Your task to perform on an android device: Add macbook pro 15 inch to the cart on newegg Image 0: 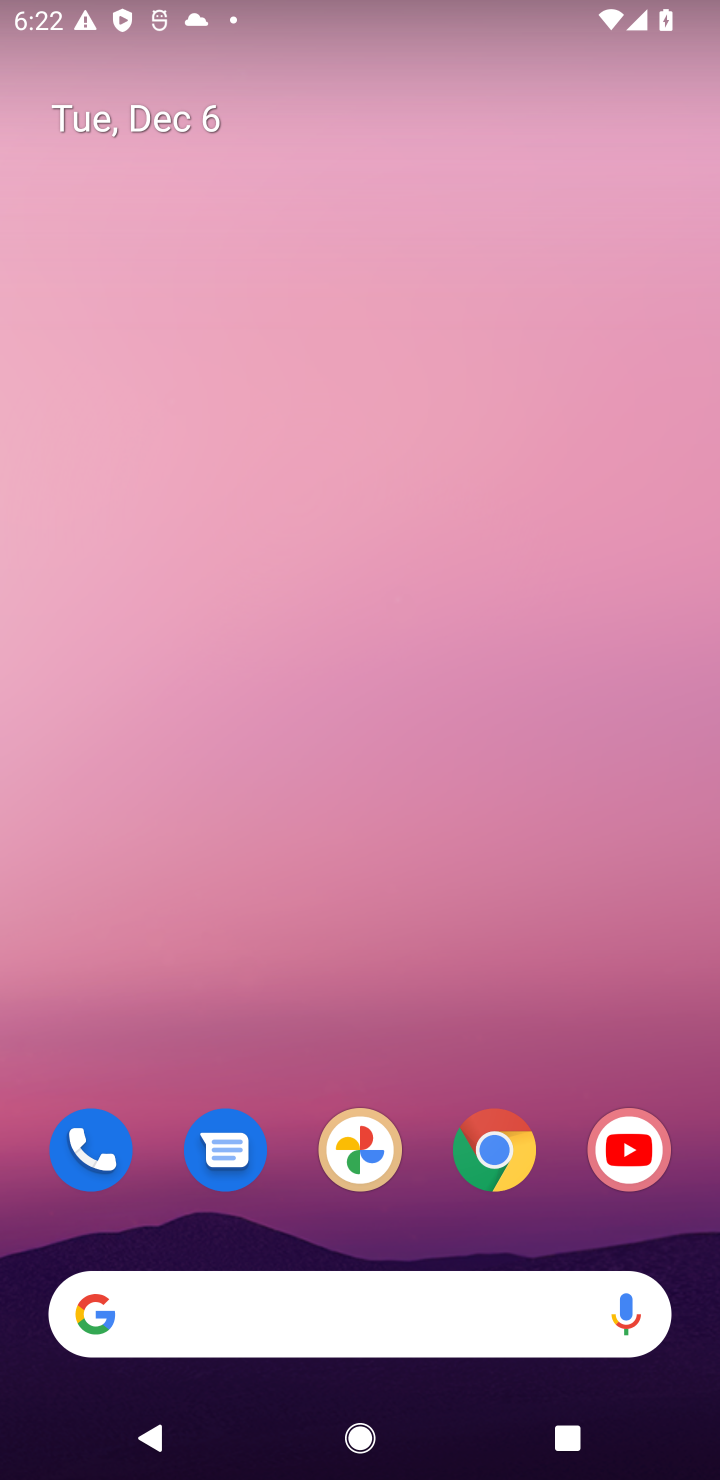
Step 0: click (490, 1160)
Your task to perform on an android device: Add macbook pro 15 inch to the cart on newegg Image 1: 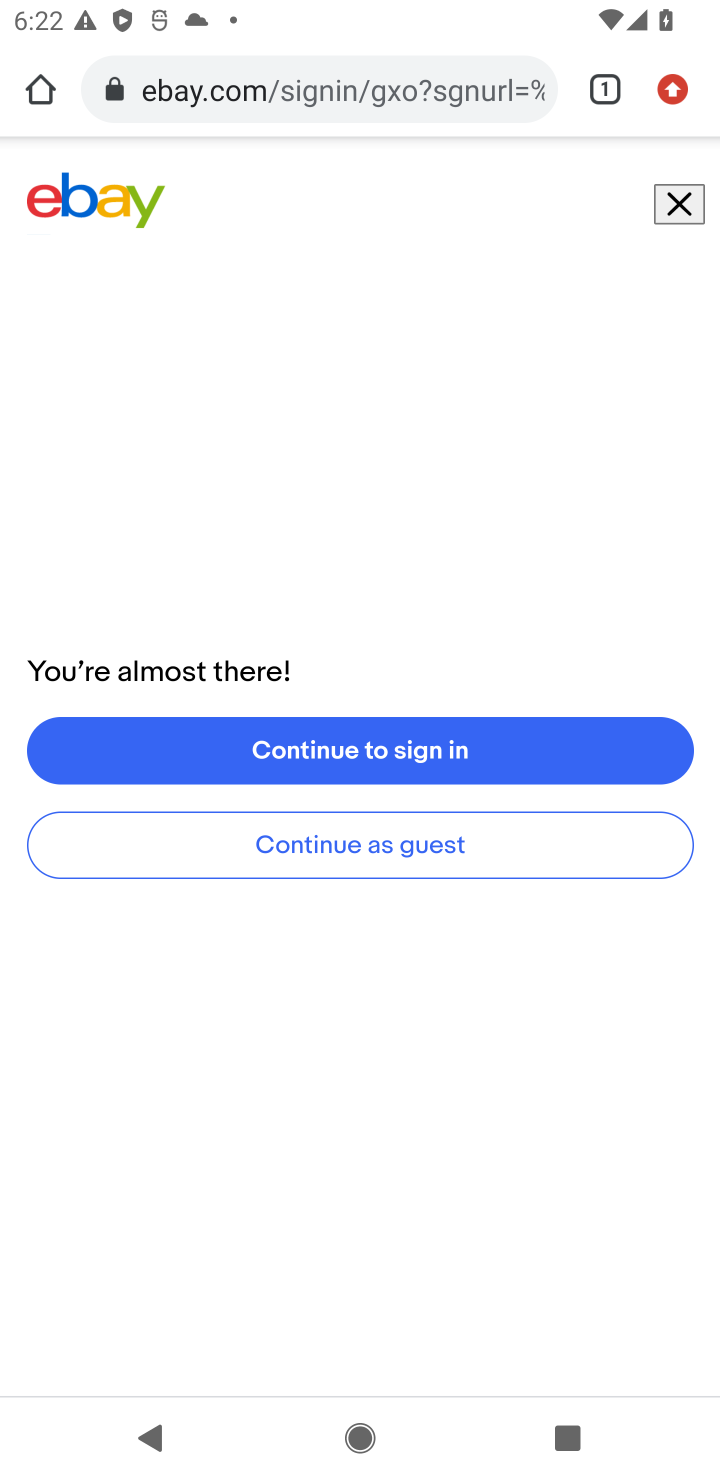
Step 1: click (277, 78)
Your task to perform on an android device: Add macbook pro 15 inch to the cart on newegg Image 2: 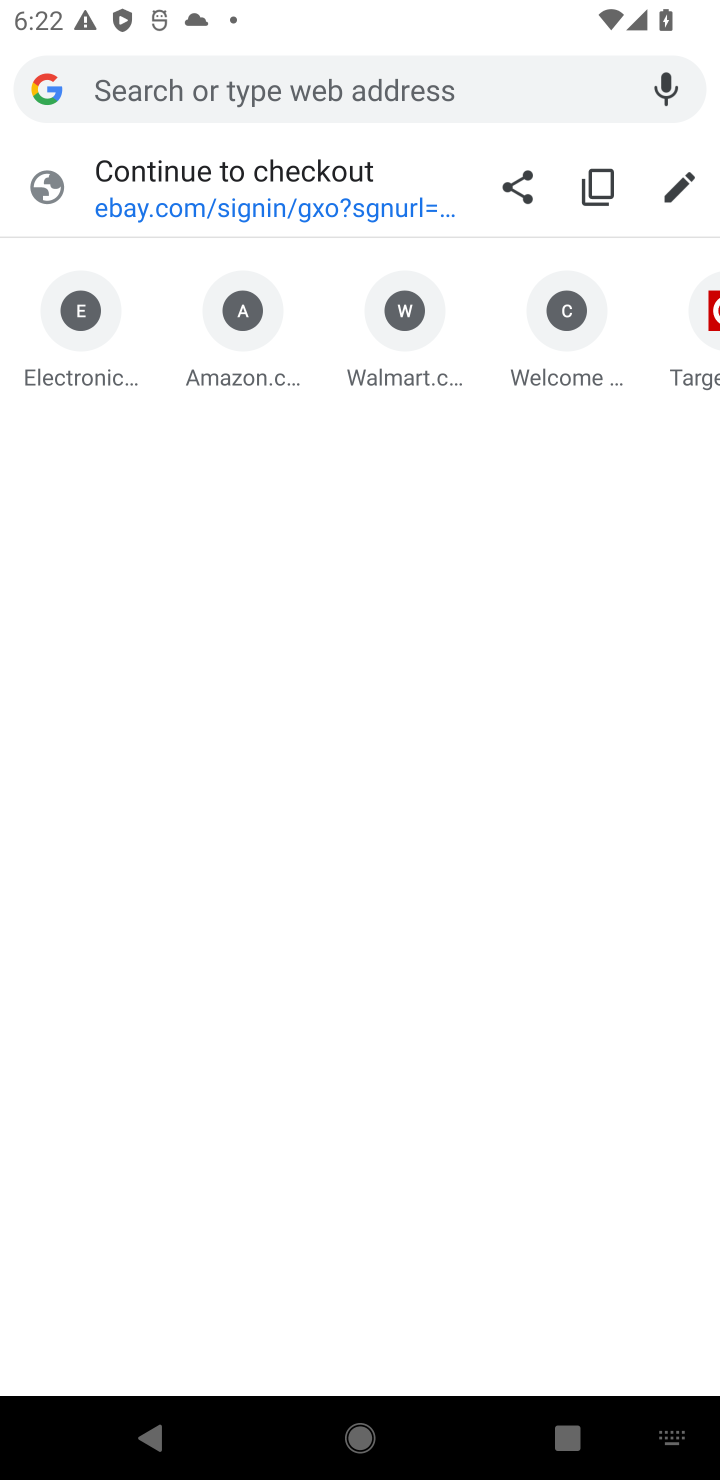
Step 2: type "newegg.com"
Your task to perform on an android device: Add macbook pro 15 inch to the cart on newegg Image 3: 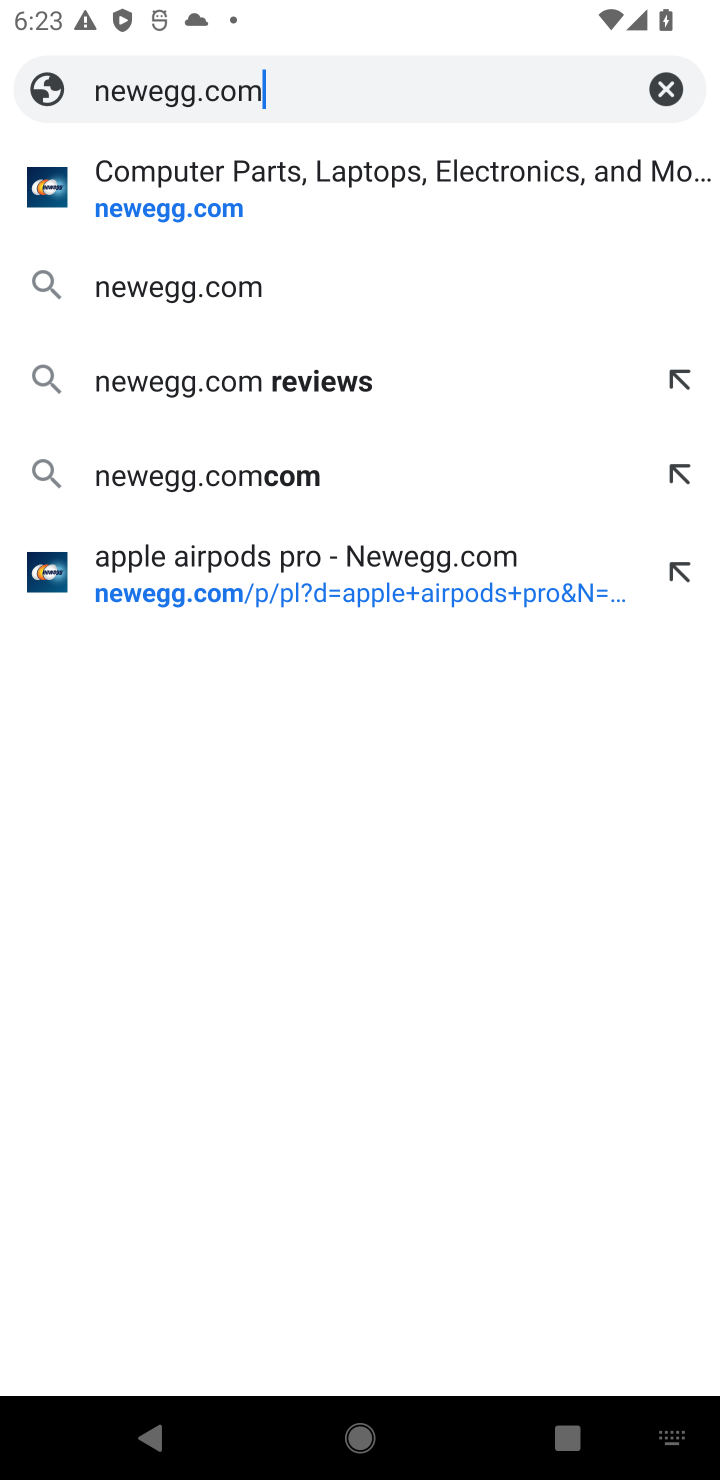
Step 3: click (169, 204)
Your task to perform on an android device: Add macbook pro 15 inch to the cart on newegg Image 4: 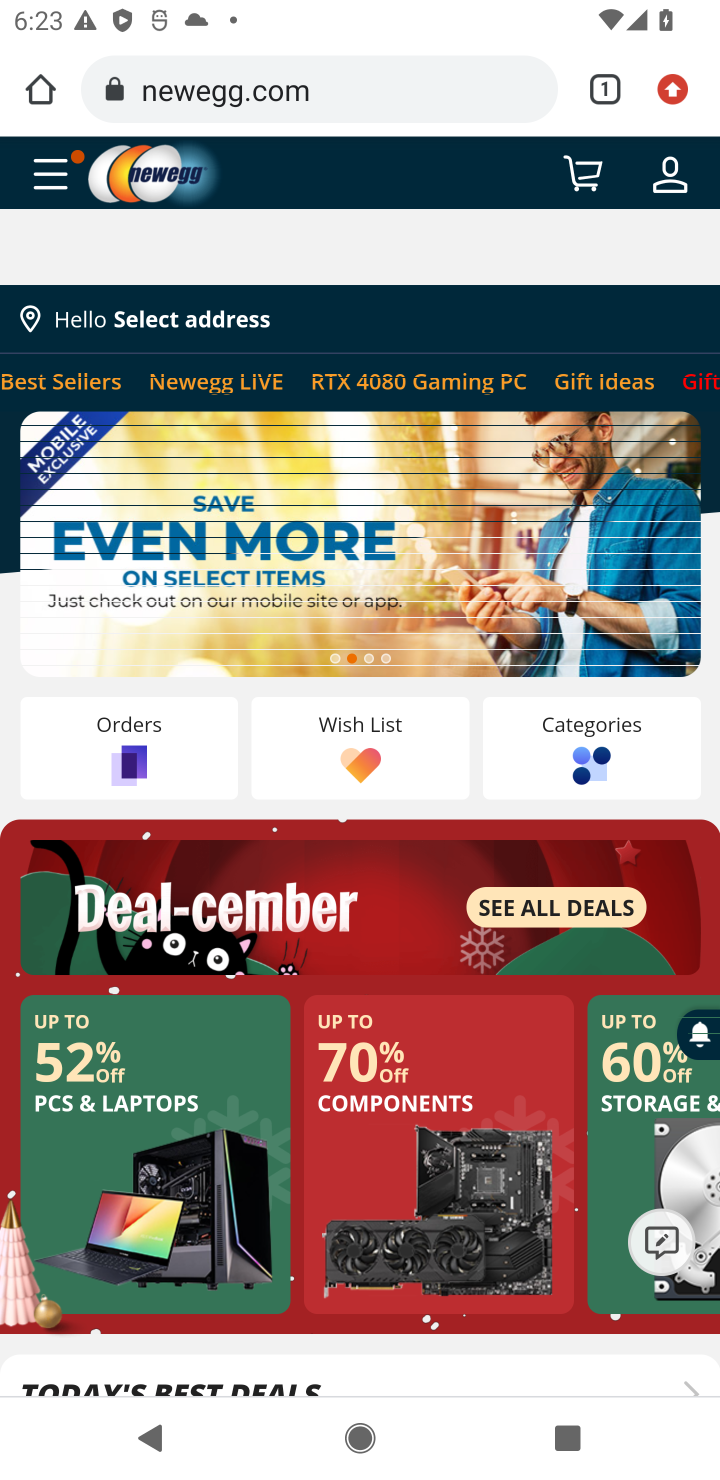
Step 4: click (136, 259)
Your task to perform on an android device: Add macbook pro 15 inch to the cart on newegg Image 5: 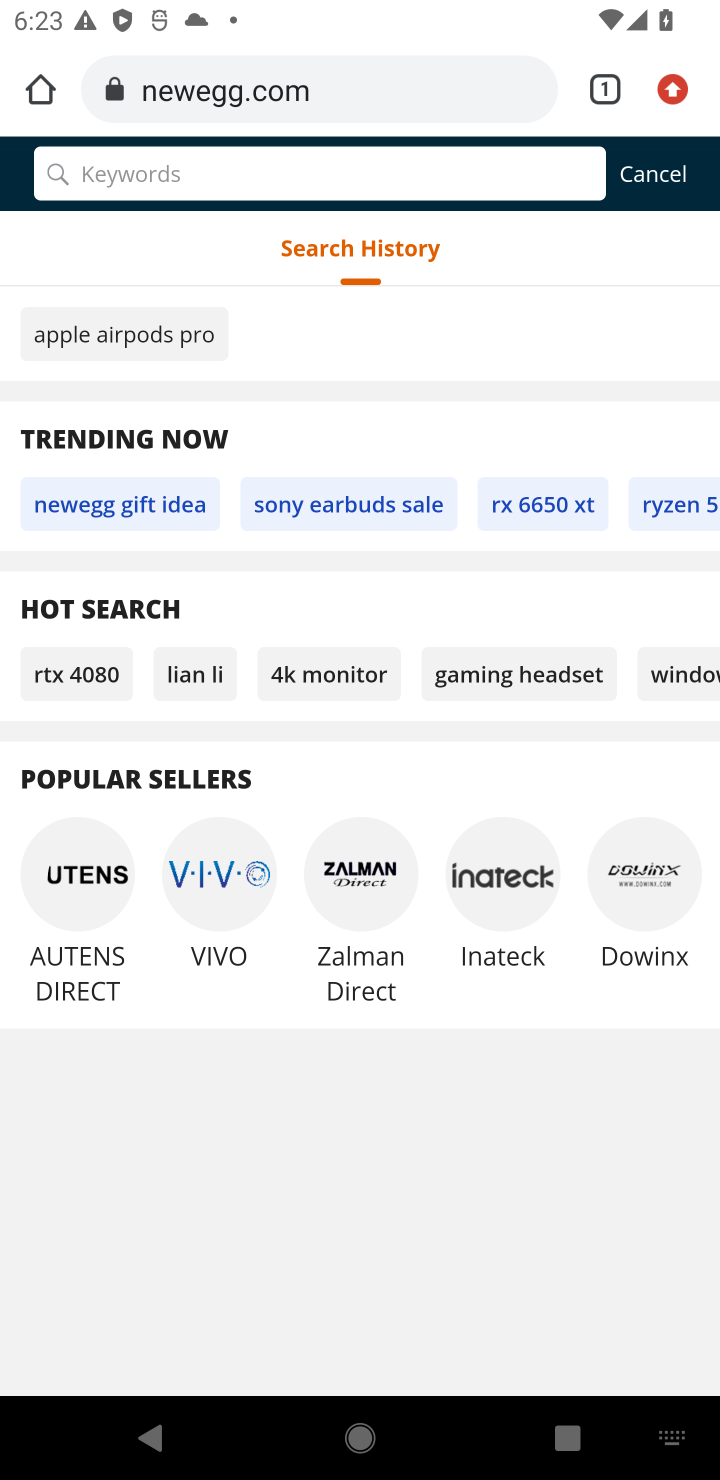
Step 5: type "macbook pro 15 inch"
Your task to perform on an android device: Add macbook pro 15 inch to the cart on newegg Image 6: 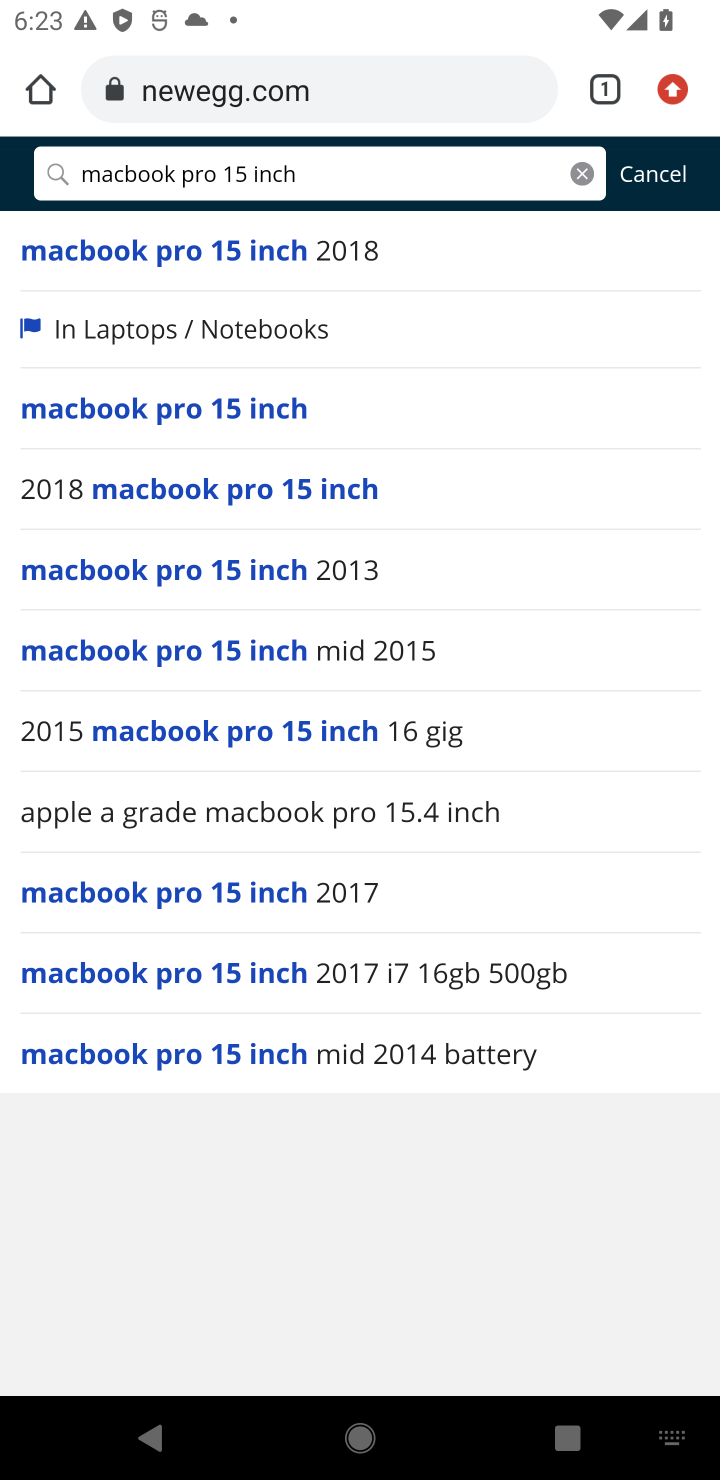
Step 6: click (204, 408)
Your task to perform on an android device: Add macbook pro 15 inch to the cart on newegg Image 7: 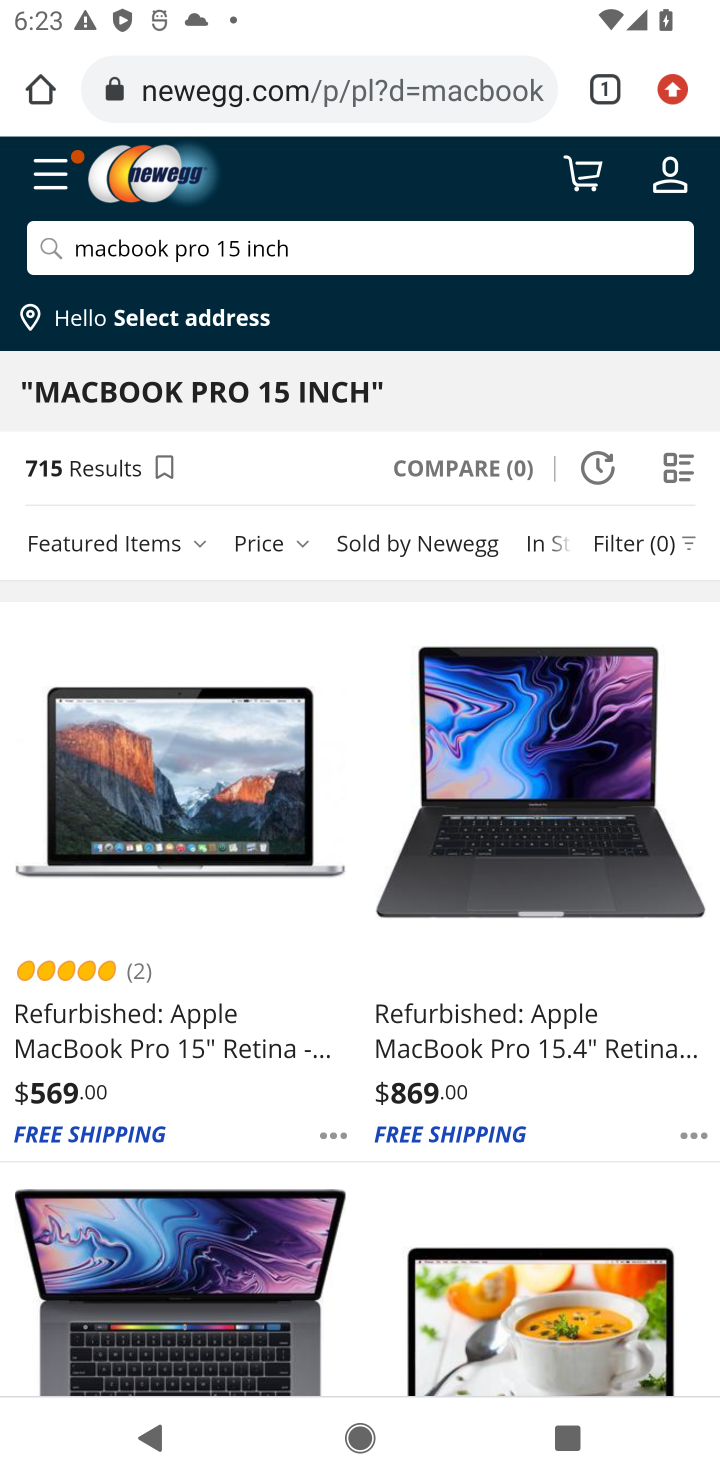
Step 7: click (162, 1029)
Your task to perform on an android device: Add macbook pro 15 inch to the cart on newegg Image 8: 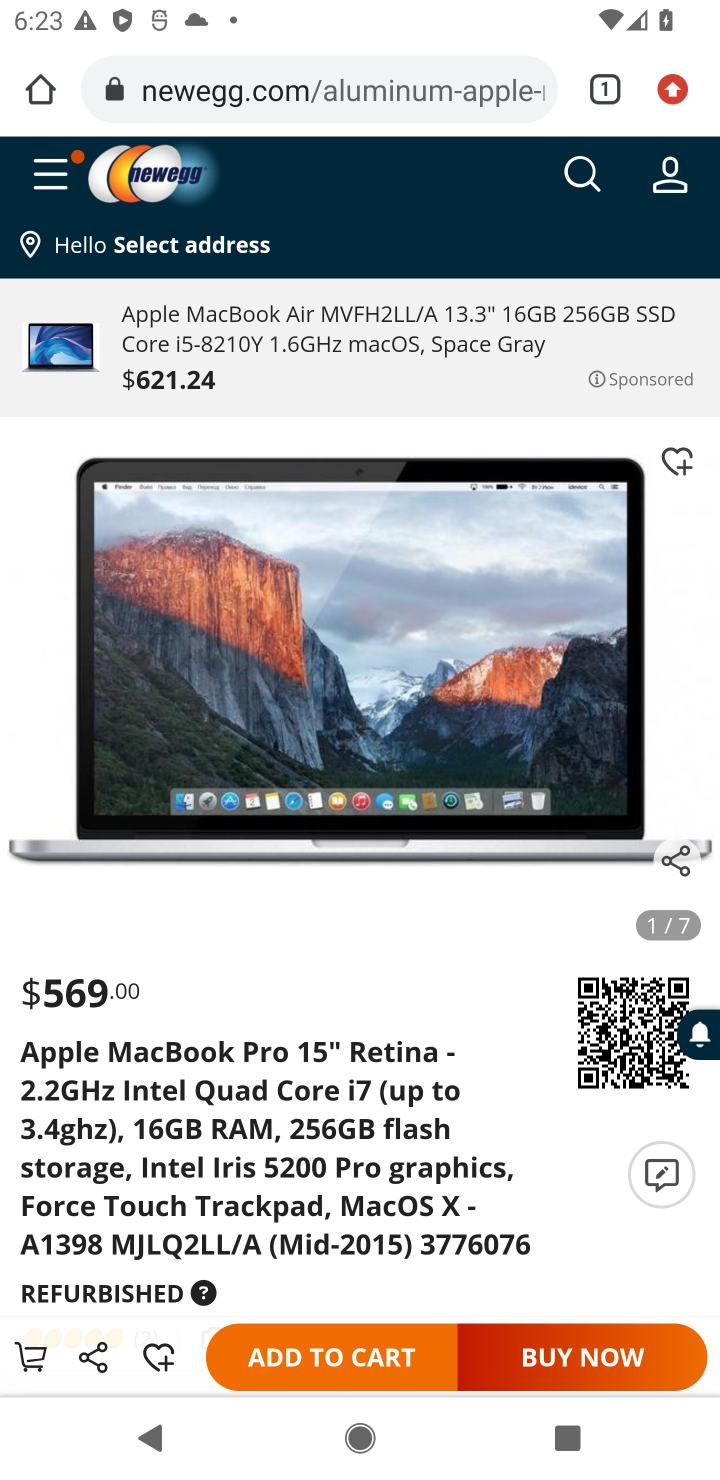
Step 8: click (299, 1350)
Your task to perform on an android device: Add macbook pro 15 inch to the cart on newegg Image 9: 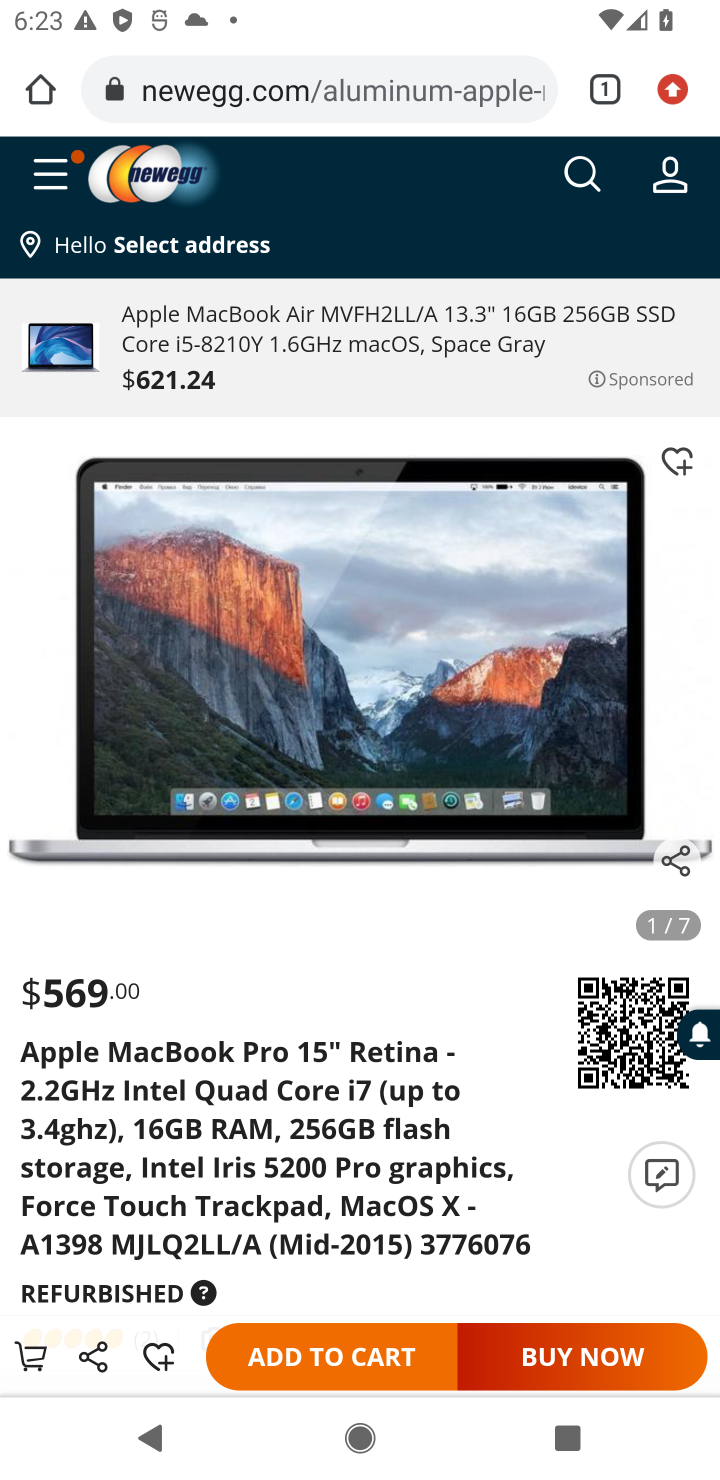
Step 9: click (328, 1360)
Your task to perform on an android device: Add macbook pro 15 inch to the cart on newegg Image 10: 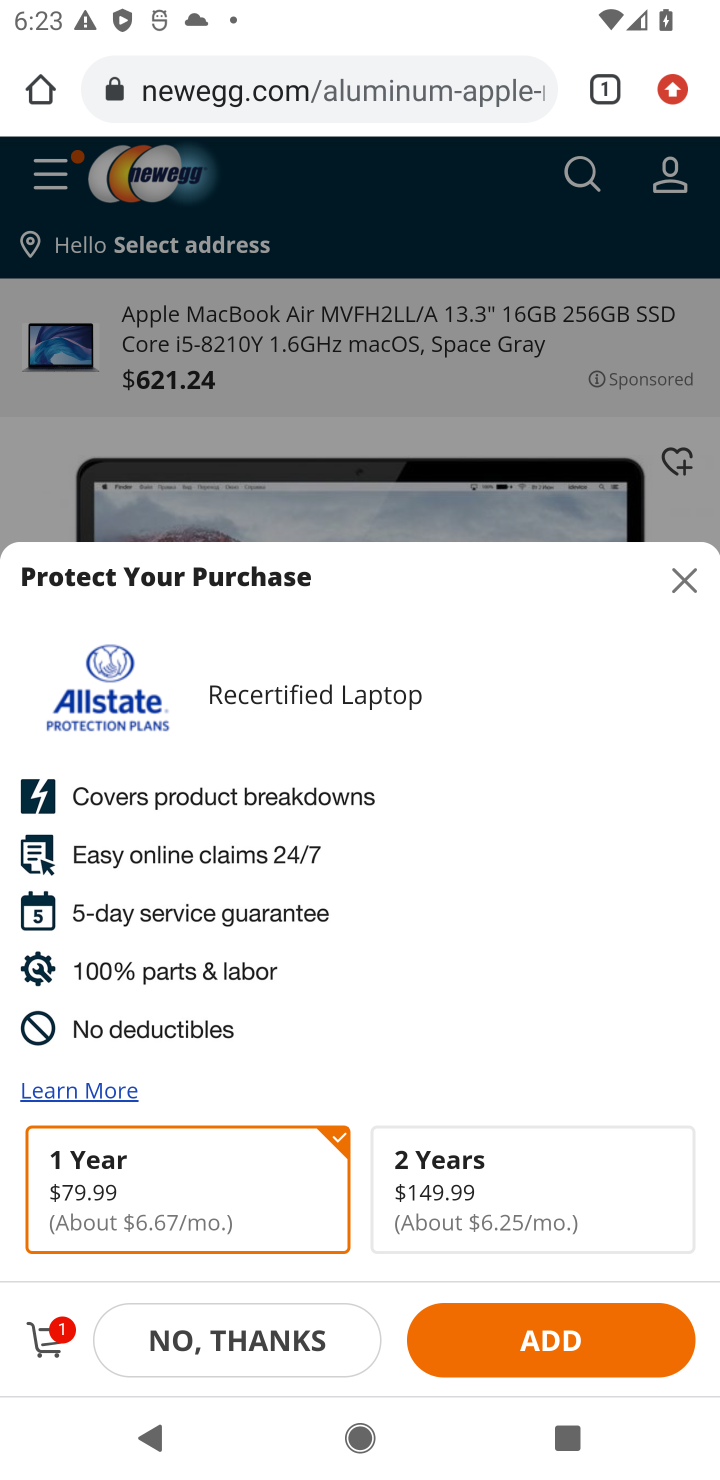
Step 10: task complete